Your task to perform on an android device: change notifications settings Image 0: 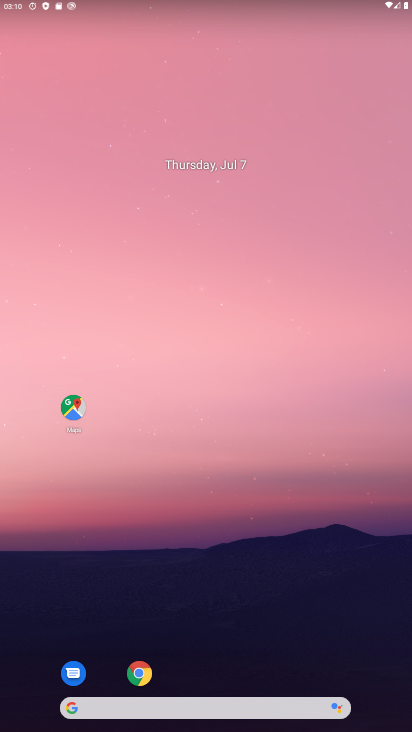
Step 0: drag from (216, 652) to (216, 165)
Your task to perform on an android device: change notifications settings Image 1: 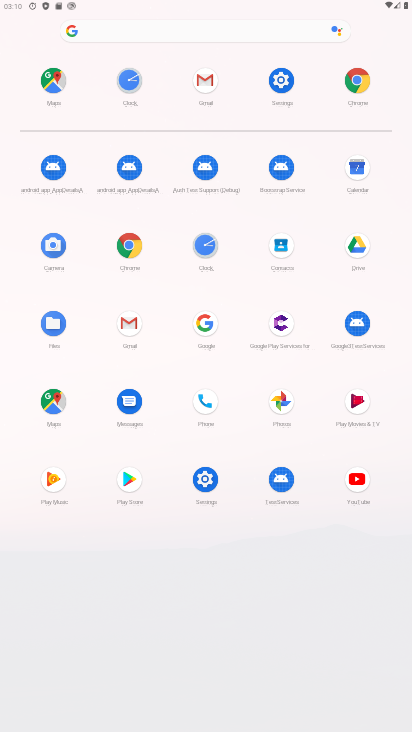
Step 1: click (275, 86)
Your task to perform on an android device: change notifications settings Image 2: 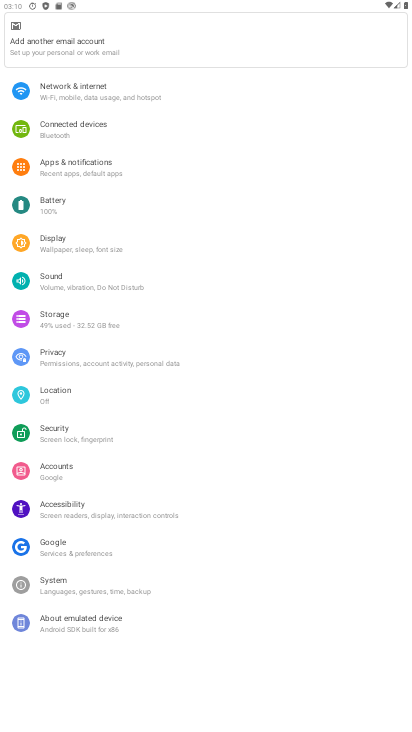
Step 2: click (128, 180)
Your task to perform on an android device: change notifications settings Image 3: 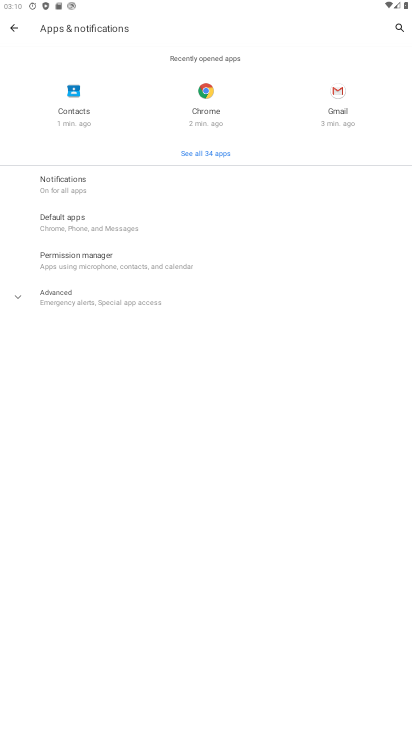
Step 3: click (91, 178)
Your task to perform on an android device: change notifications settings Image 4: 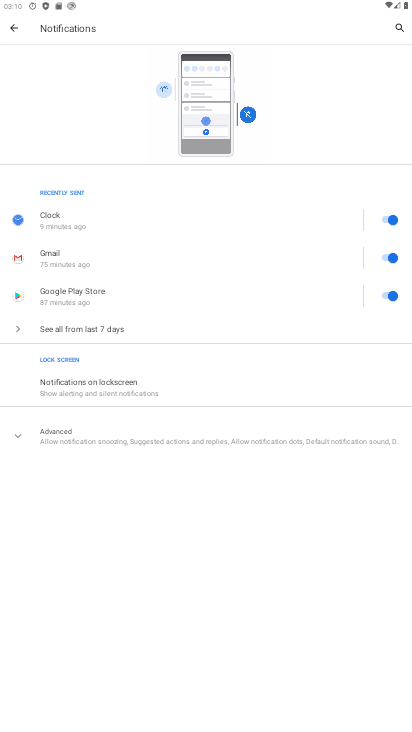
Step 4: click (126, 397)
Your task to perform on an android device: change notifications settings Image 5: 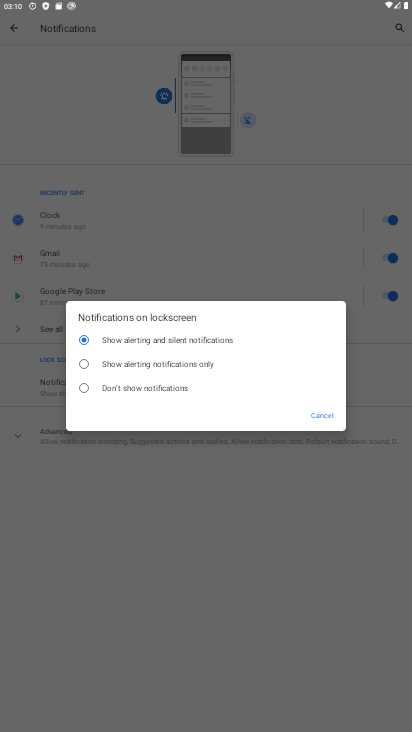
Step 5: click (130, 398)
Your task to perform on an android device: change notifications settings Image 6: 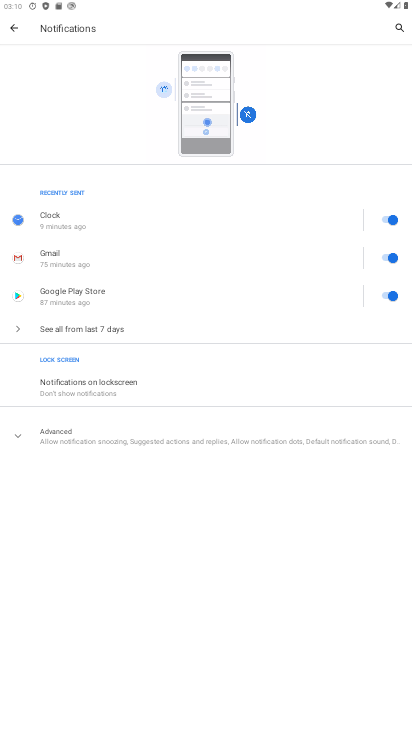
Step 6: task complete